Your task to perform on an android device: turn on improve location accuracy Image 0: 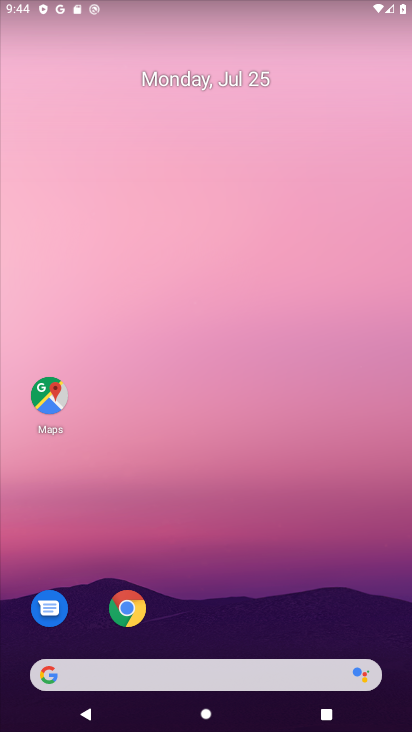
Step 0: drag from (206, 667) to (278, 89)
Your task to perform on an android device: turn on improve location accuracy Image 1: 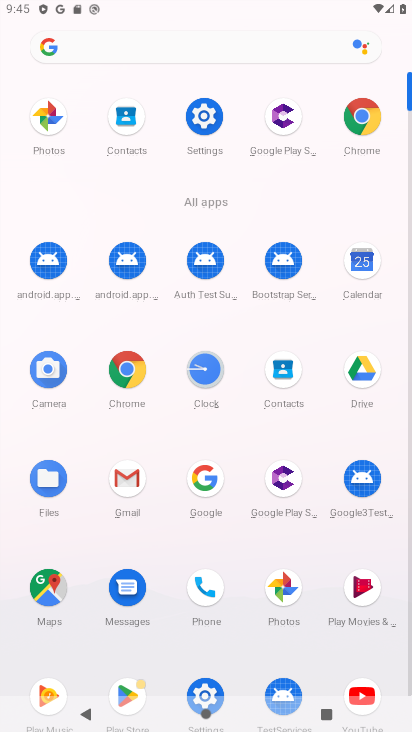
Step 1: click (193, 135)
Your task to perform on an android device: turn on improve location accuracy Image 2: 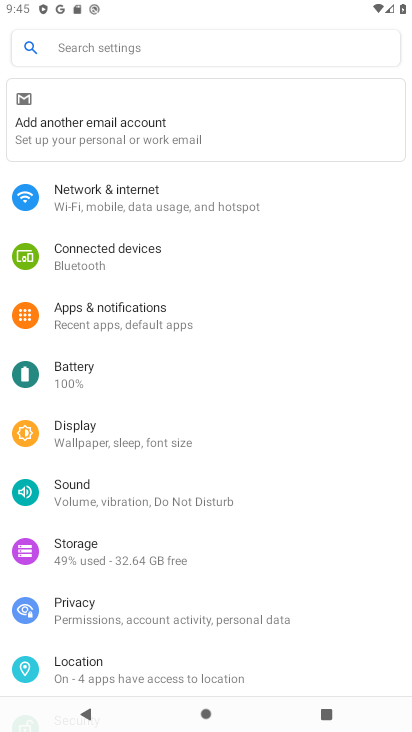
Step 2: click (71, 677)
Your task to perform on an android device: turn on improve location accuracy Image 3: 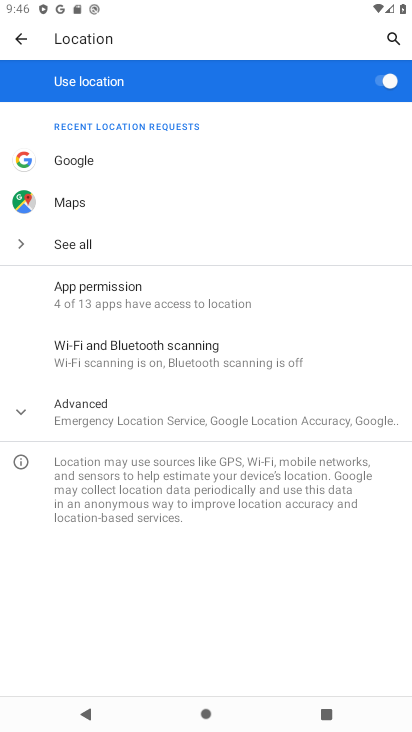
Step 3: click (110, 420)
Your task to perform on an android device: turn on improve location accuracy Image 4: 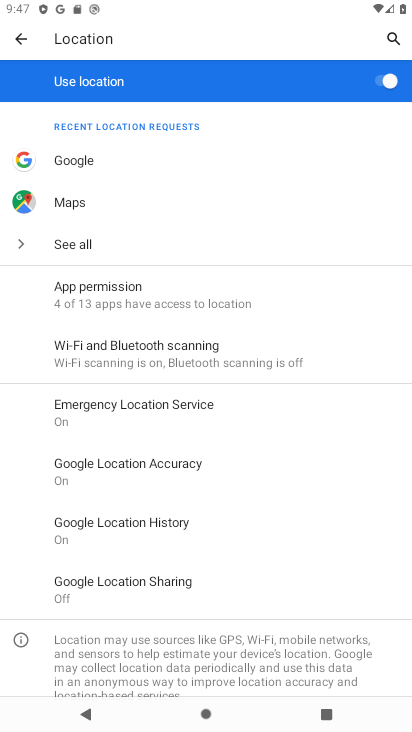
Step 4: click (202, 465)
Your task to perform on an android device: turn on improve location accuracy Image 5: 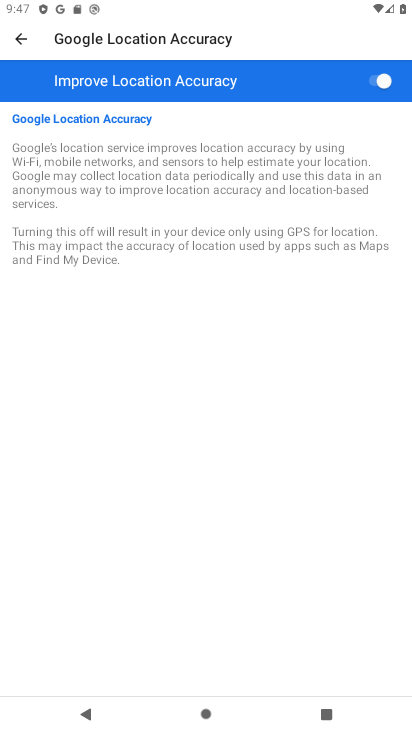
Step 5: task complete